Your task to perform on an android device: Open my contact list Image 0: 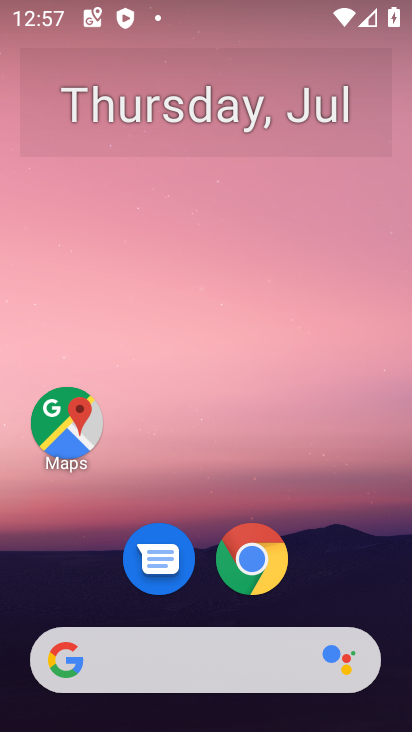
Step 0: drag from (360, 603) to (282, 121)
Your task to perform on an android device: Open my contact list Image 1: 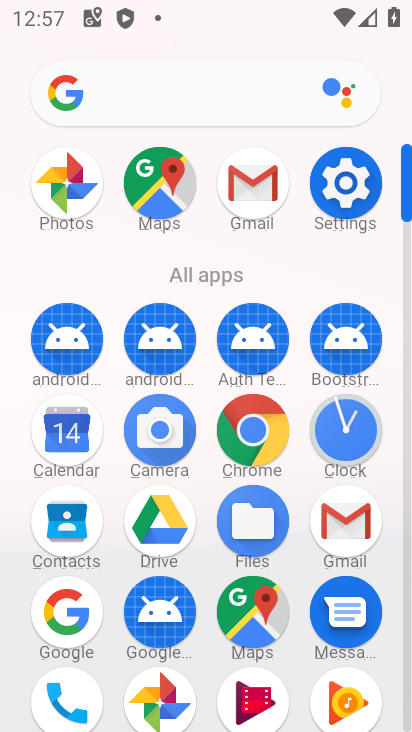
Step 1: click (57, 534)
Your task to perform on an android device: Open my contact list Image 2: 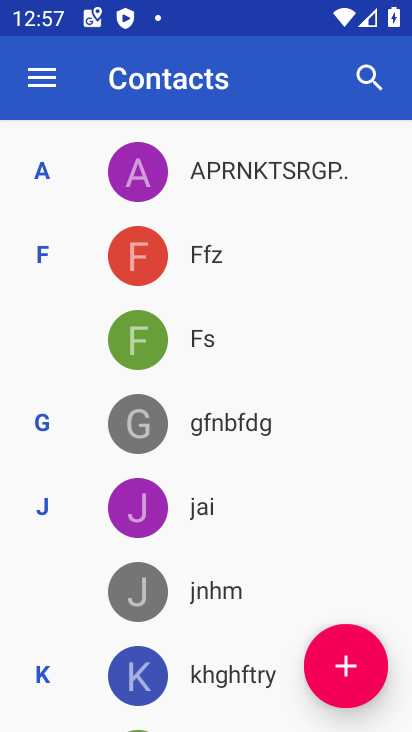
Step 2: task complete